Your task to perform on an android device: Search for "alienware aurora" on newegg, select the first entry, add it to the cart, then select checkout. Image 0: 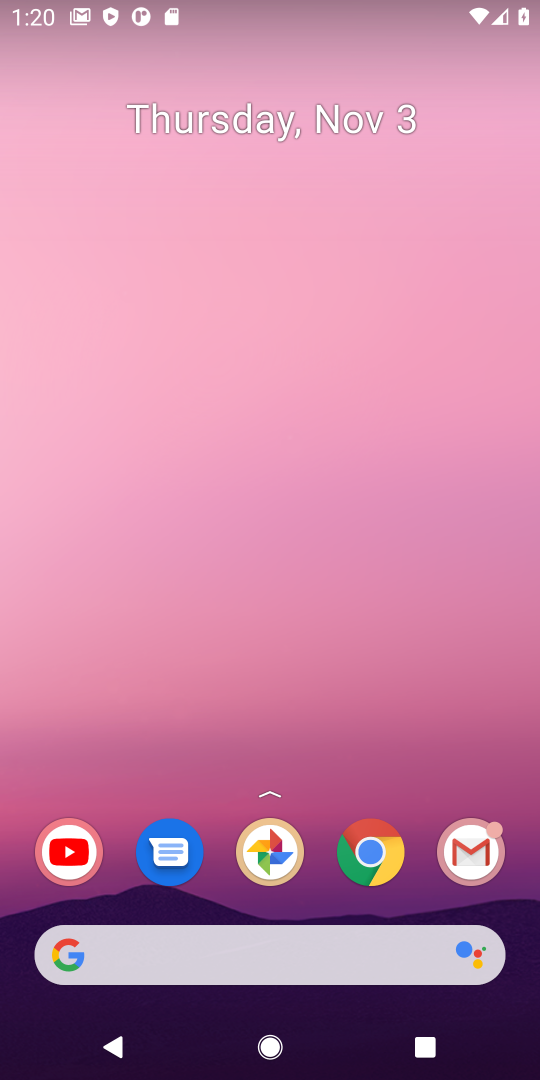
Step 0: click (370, 857)
Your task to perform on an android device: Search for "alienware aurora" on newegg, select the first entry, add it to the cart, then select checkout. Image 1: 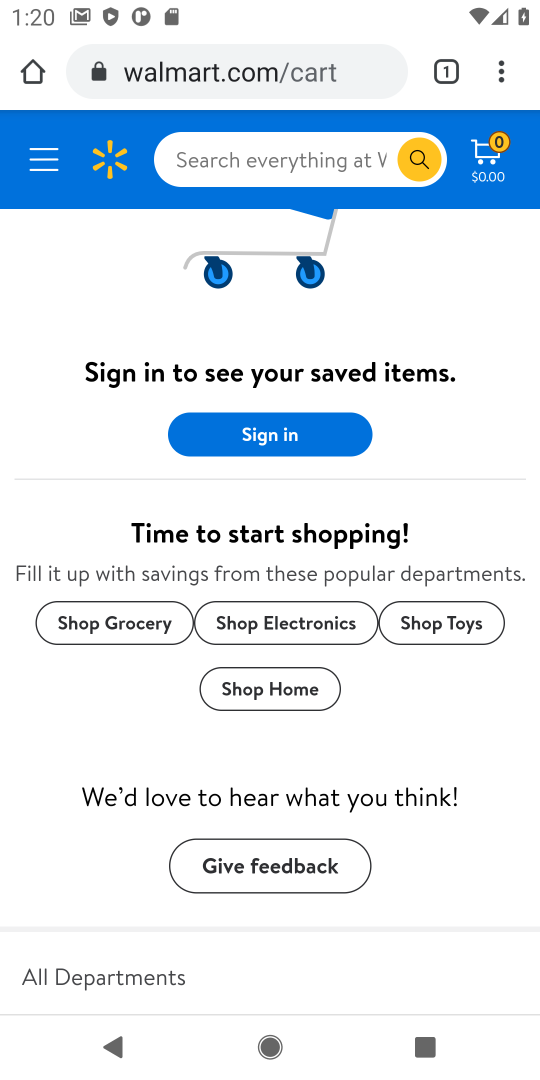
Step 1: click (241, 70)
Your task to perform on an android device: Search for "alienware aurora" on newegg, select the first entry, add it to the cart, then select checkout. Image 2: 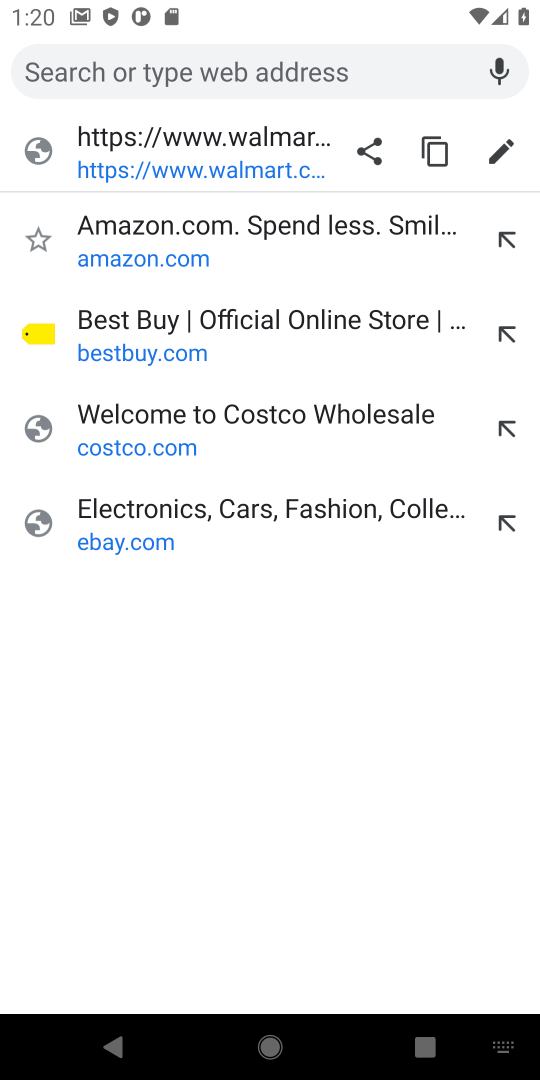
Step 2: type "newegg.com"
Your task to perform on an android device: Search for "alienware aurora" on newegg, select the first entry, add it to the cart, then select checkout. Image 3: 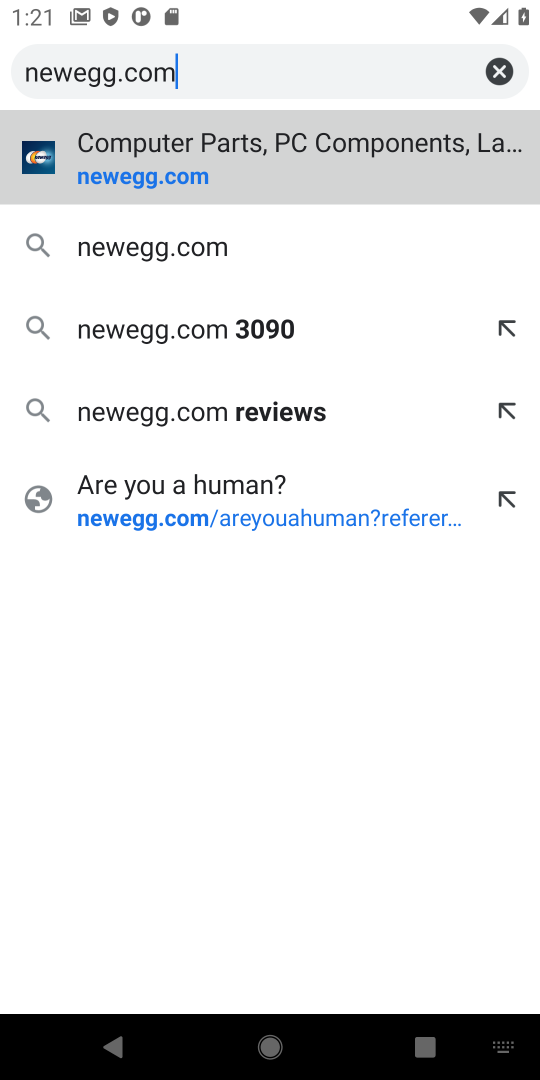
Step 3: click (116, 257)
Your task to perform on an android device: Search for "alienware aurora" on newegg, select the first entry, add it to the cart, then select checkout. Image 4: 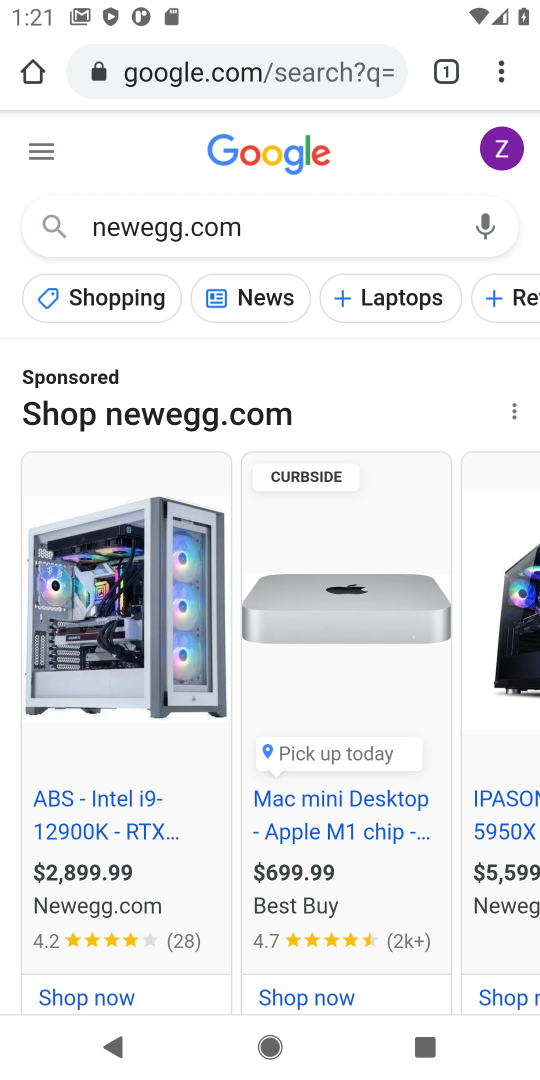
Step 4: drag from (185, 749) to (234, 239)
Your task to perform on an android device: Search for "alienware aurora" on newegg, select the first entry, add it to the cart, then select checkout. Image 5: 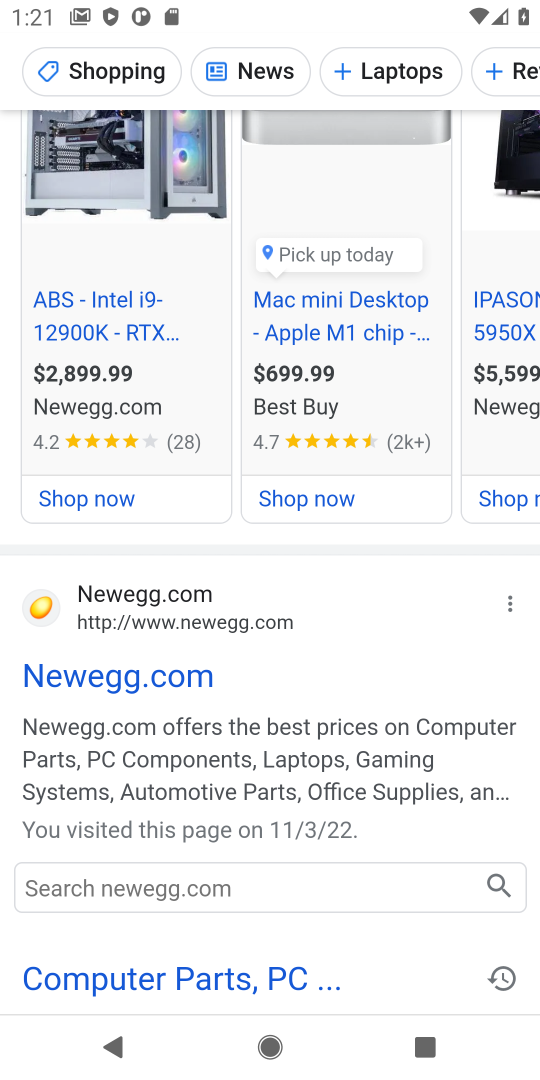
Step 5: click (118, 681)
Your task to perform on an android device: Search for "alienware aurora" on newegg, select the first entry, add it to the cart, then select checkout. Image 6: 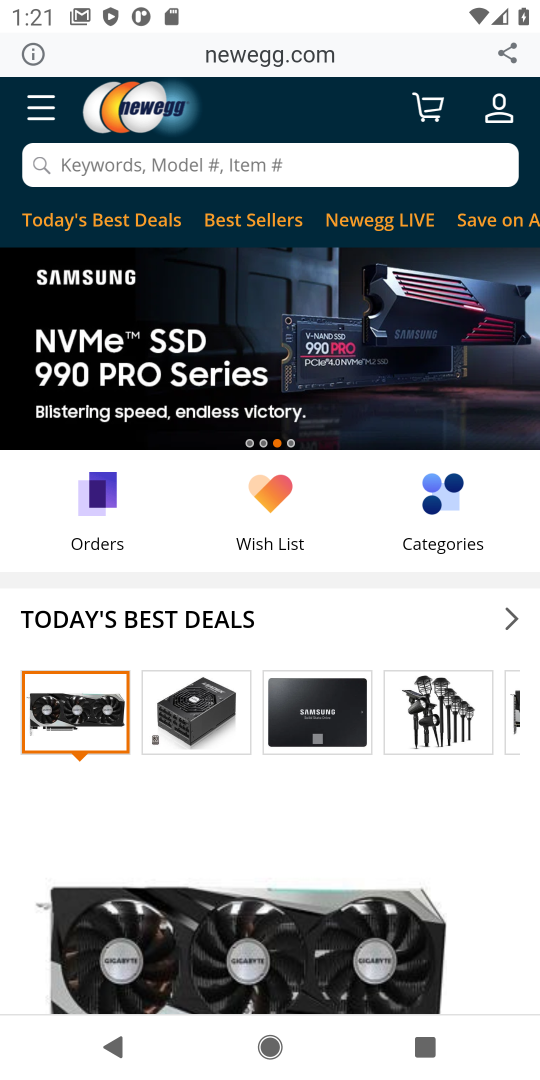
Step 6: click (166, 172)
Your task to perform on an android device: Search for "alienware aurora" on newegg, select the first entry, add it to the cart, then select checkout. Image 7: 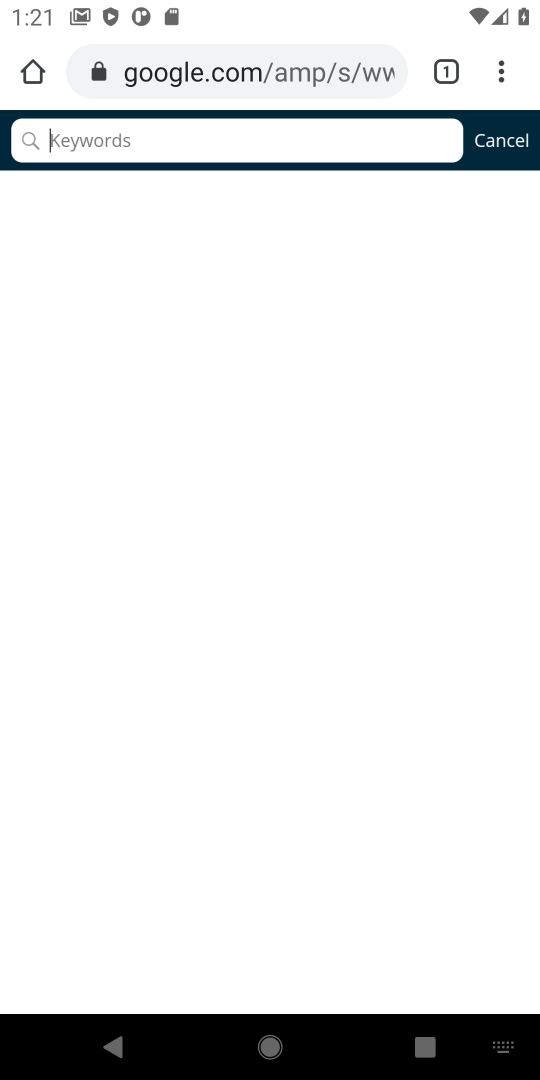
Step 7: type "alienware aurora"
Your task to perform on an android device: Search for "alienware aurora" on newegg, select the first entry, add it to the cart, then select checkout. Image 8: 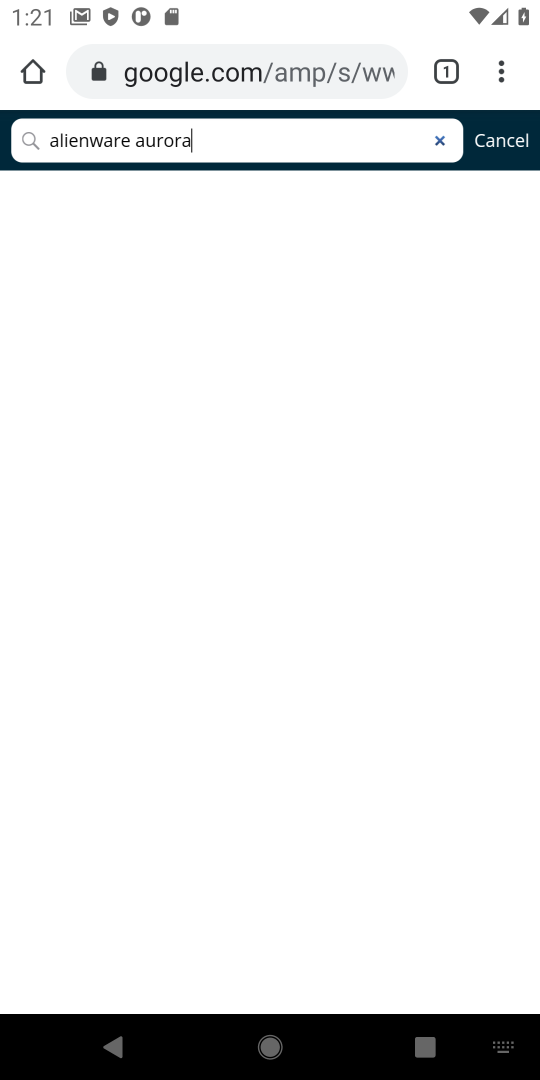
Step 8: click (29, 139)
Your task to perform on an android device: Search for "alienware aurora" on newegg, select the first entry, add it to the cart, then select checkout. Image 9: 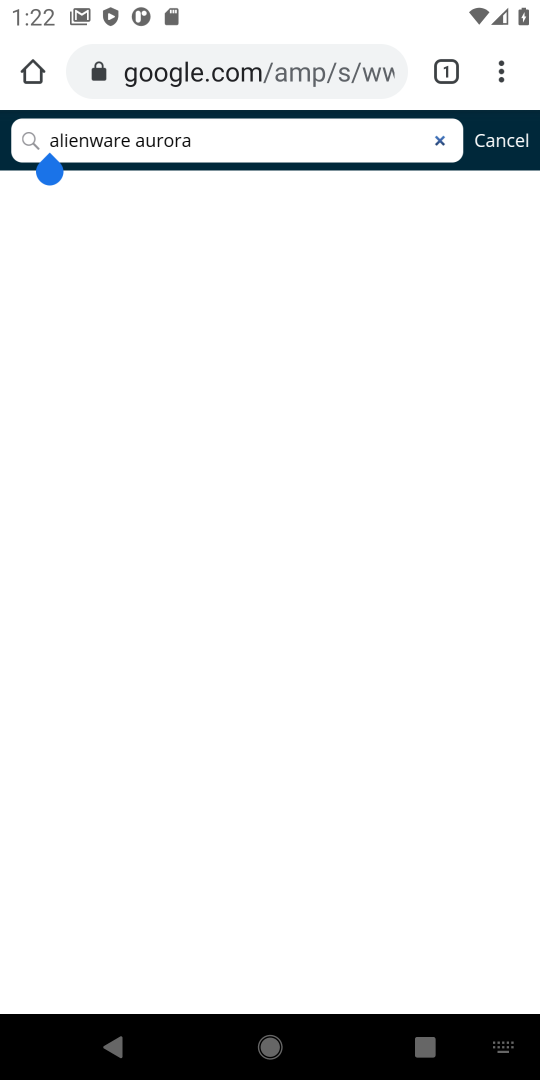
Step 9: task complete